Your task to perform on an android device: open app "Microsoft Outlook" (install if not already installed) and go to login screen Image 0: 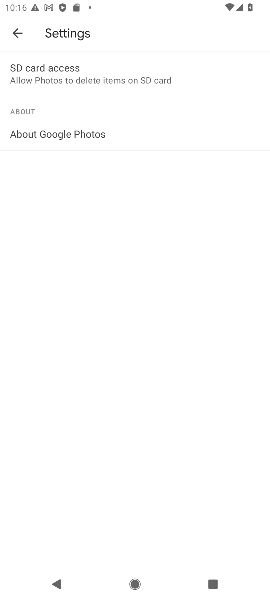
Step 0: press home button
Your task to perform on an android device: open app "Microsoft Outlook" (install if not already installed) and go to login screen Image 1: 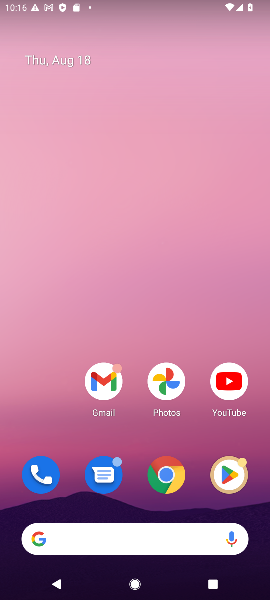
Step 1: click (226, 472)
Your task to perform on an android device: open app "Microsoft Outlook" (install if not already installed) and go to login screen Image 2: 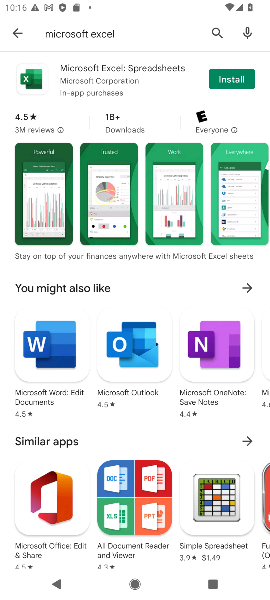
Step 2: click (18, 31)
Your task to perform on an android device: open app "Microsoft Outlook" (install if not already installed) and go to login screen Image 3: 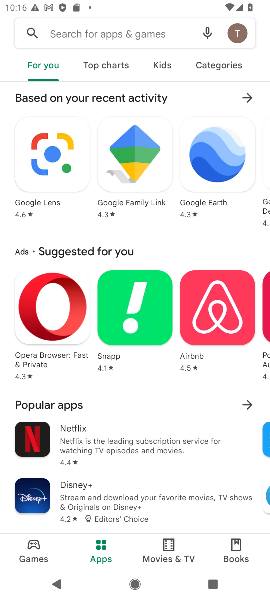
Step 3: click (54, 38)
Your task to perform on an android device: open app "Microsoft Outlook" (install if not already installed) and go to login screen Image 4: 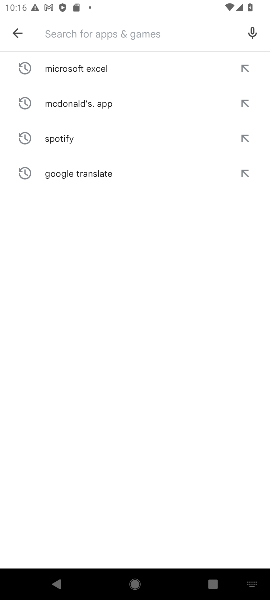
Step 4: type "Microsoft Outlook"
Your task to perform on an android device: open app "Microsoft Outlook" (install if not already installed) and go to login screen Image 5: 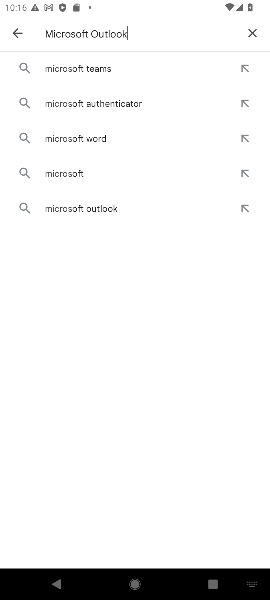
Step 5: type ""
Your task to perform on an android device: open app "Microsoft Outlook" (install if not already installed) and go to login screen Image 6: 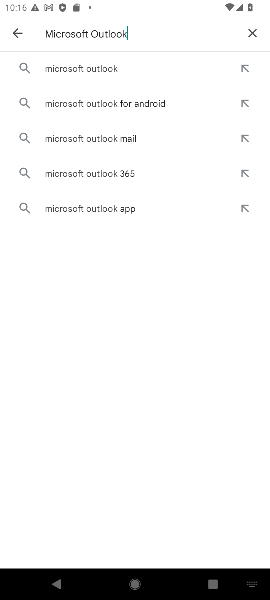
Step 6: click (75, 70)
Your task to perform on an android device: open app "Microsoft Outlook" (install if not already installed) and go to login screen Image 7: 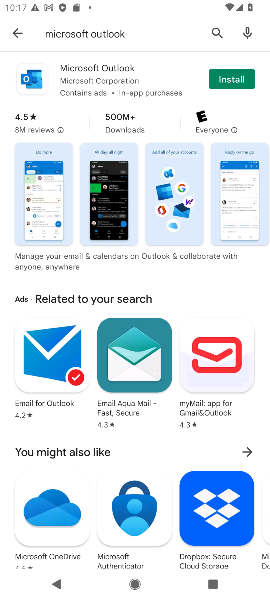
Step 7: click (228, 81)
Your task to perform on an android device: open app "Microsoft Outlook" (install if not already installed) and go to login screen Image 8: 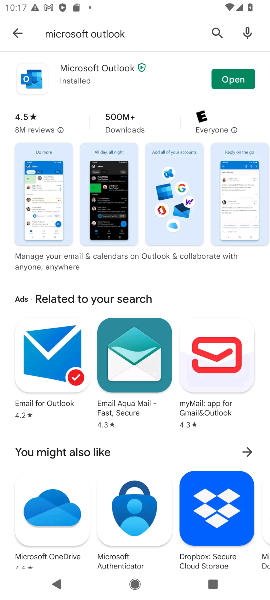
Step 8: click (236, 77)
Your task to perform on an android device: open app "Microsoft Outlook" (install if not already installed) and go to login screen Image 9: 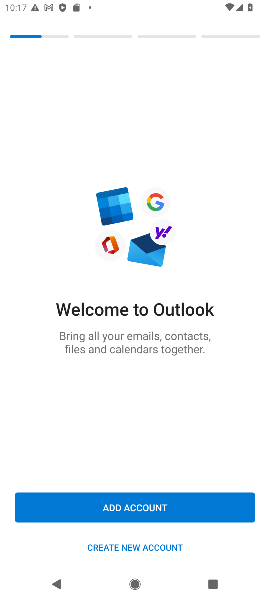
Step 9: click (144, 506)
Your task to perform on an android device: open app "Microsoft Outlook" (install if not already installed) and go to login screen Image 10: 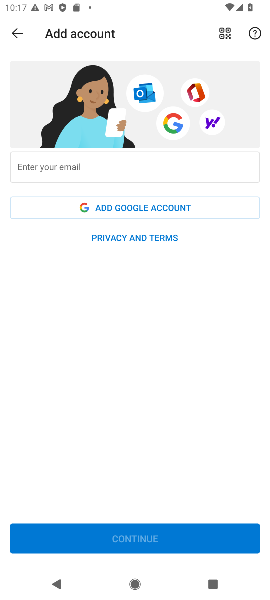
Step 10: click (107, 160)
Your task to perform on an android device: open app "Microsoft Outlook" (install if not already installed) and go to login screen Image 11: 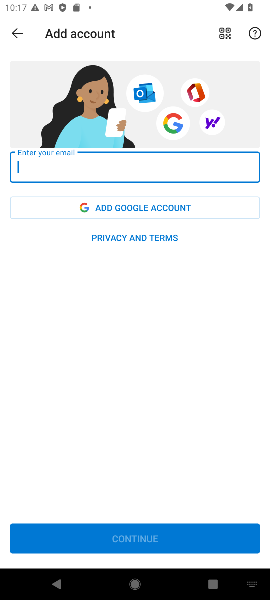
Step 11: task complete